Your task to perform on an android device: turn on sleep mode Image 0: 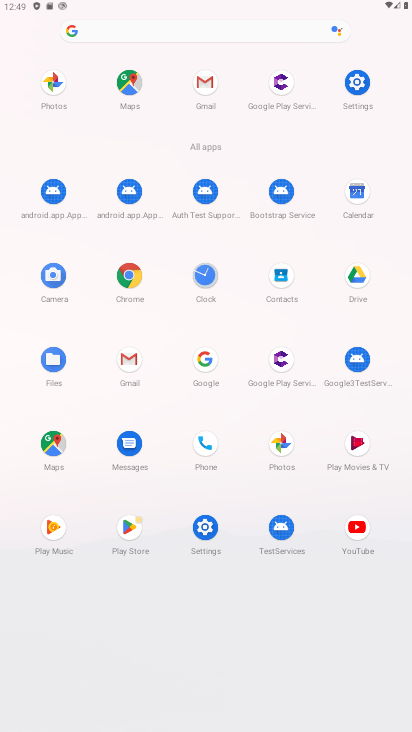
Step 0: press home button
Your task to perform on an android device: turn on sleep mode Image 1: 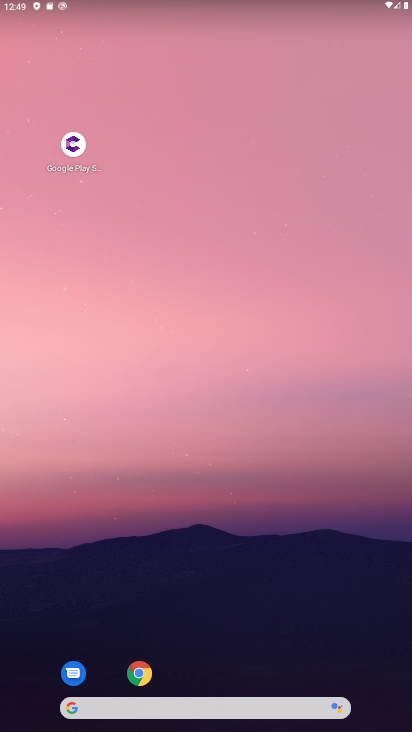
Step 1: drag from (213, 711) to (186, 274)
Your task to perform on an android device: turn on sleep mode Image 2: 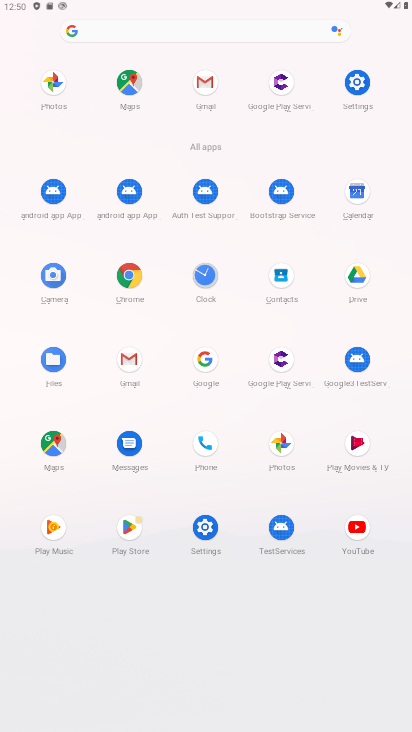
Step 2: click (224, 533)
Your task to perform on an android device: turn on sleep mode Image 3: 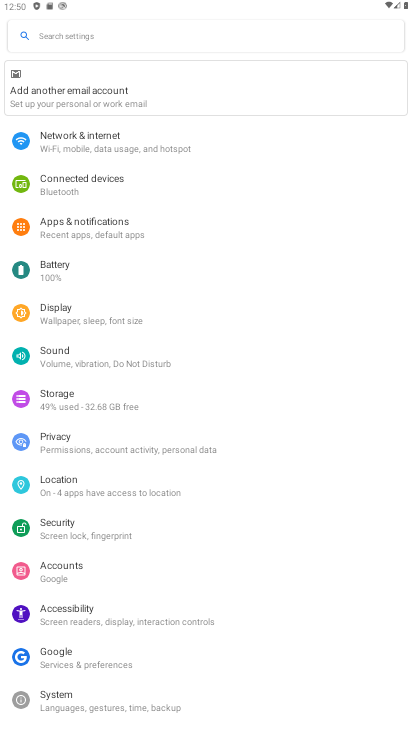
Step 3: click (78, 319)
Your task to perform on an android device: turn on sleep mode Image 4: 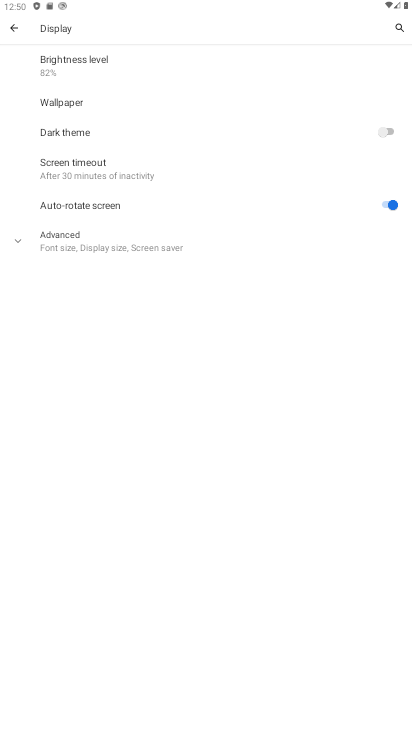
Step 4: click (120, 255)
Your task to perform on an android device: turn on sleep mode Image 5: 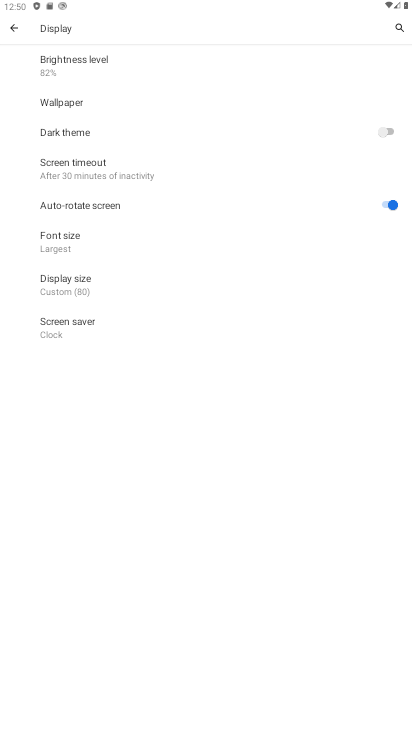
Step 5: task complete